Your task to perform on an android device: change your default location settings in chrome Image 0: 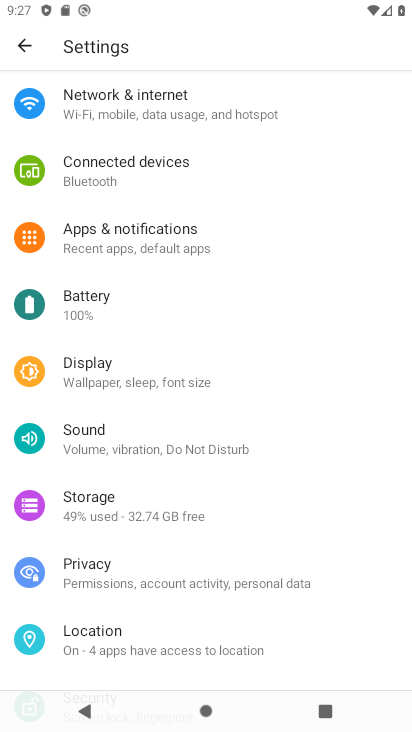
Step 0: press home button
Your task to perform on an android device: change your default location settings in chrome Image 1: 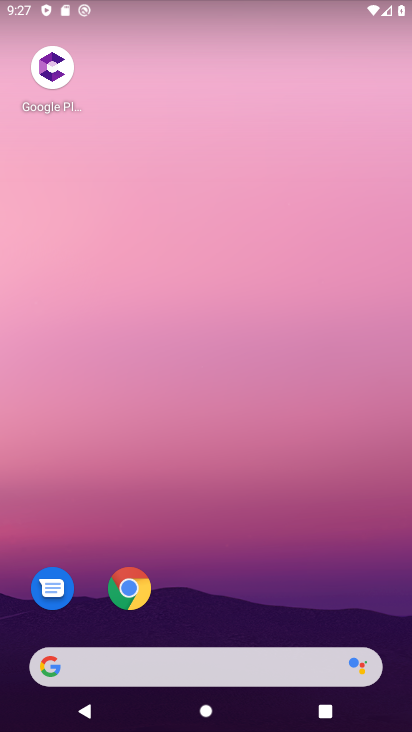
Step 1: click (119, 601)
Your task to perform on an android device: change your default location settings in chrome Image 2: 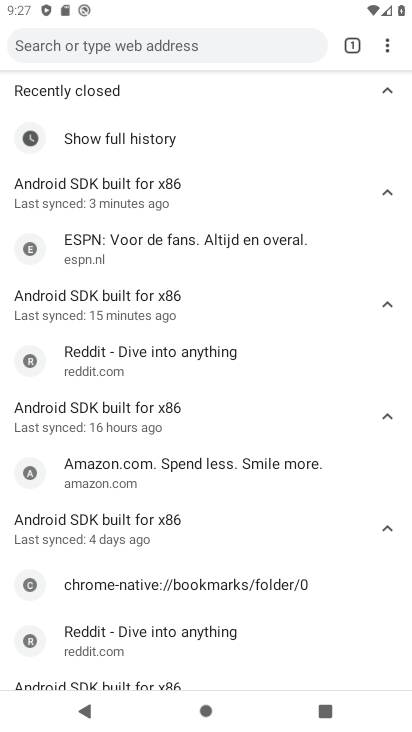
Step 2: click (383, 44)
Your task to perform on an android device: change your default location settings in chrome Image 3: 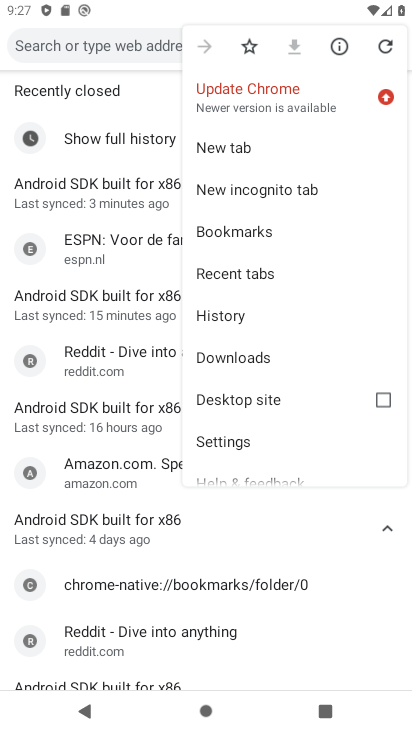
Step 3: click (244, 436)
Your task to perform on an android device: change your default location settings in chrome Image 4: 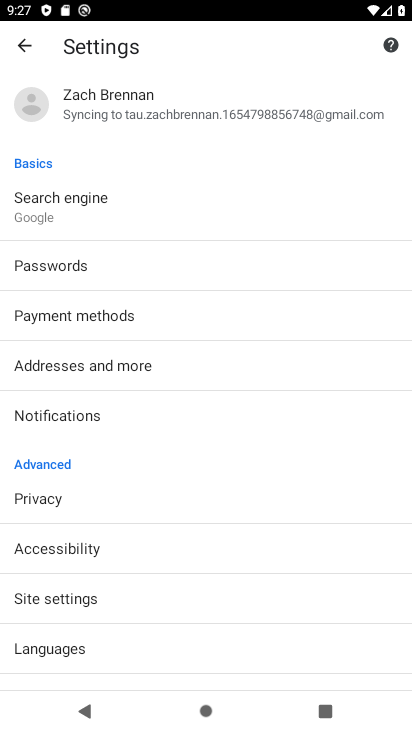
Step 4: drag from (211, 629) to (230, 265)
Your task to perform on an android device: change your default location settings in chrome Image 5: 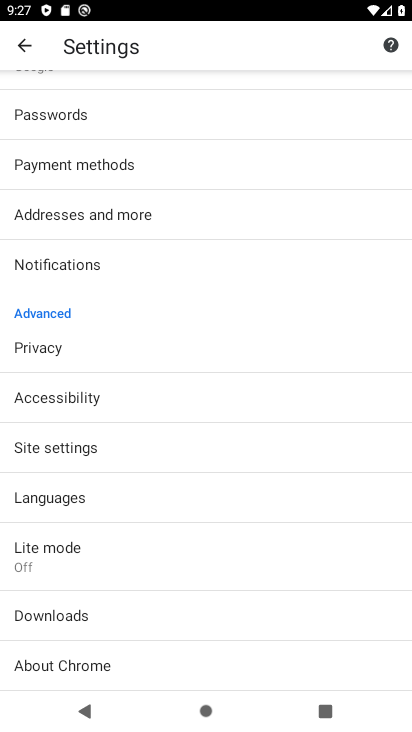
Step 5: click (89, 443)
Your task to perform on an android device: change your default location settings in chrome Image 6: 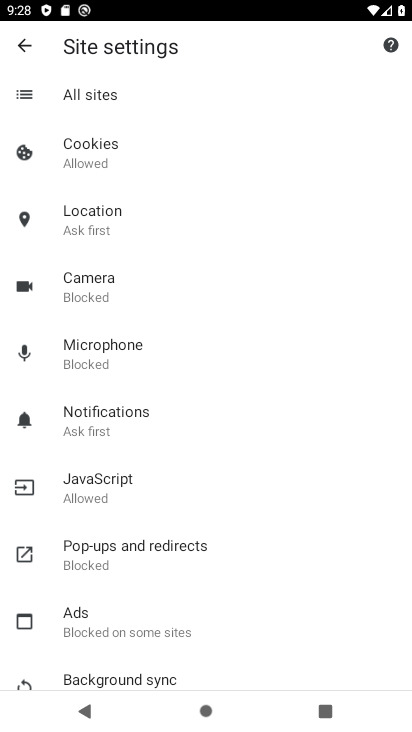
Step 6: click (108, 207)
Your task to perform on an android device: change your default location settings in chrome Image 7: 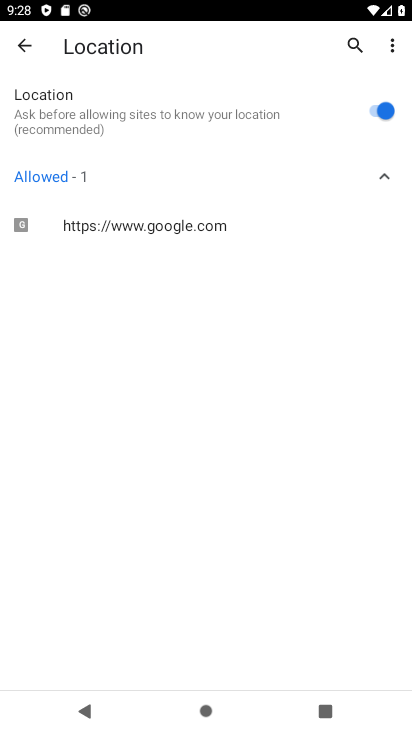
Step 7: click (383, 101)
Your task to perform on an android device: change your default location settings in chrome Image 8: 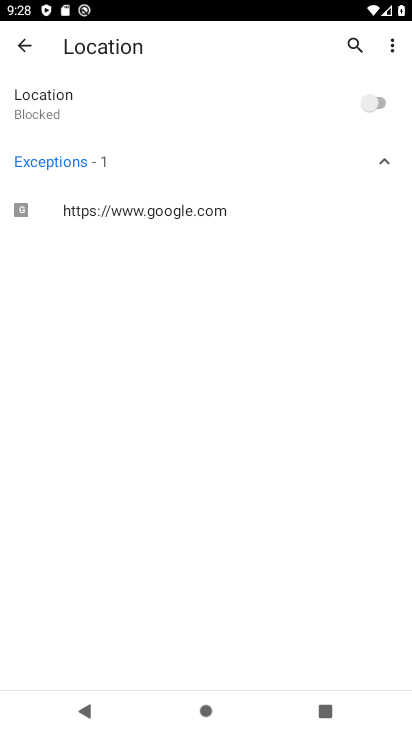
Step 8: task complete